Your task to perform on an android device: turn off sleep mode Image 0: 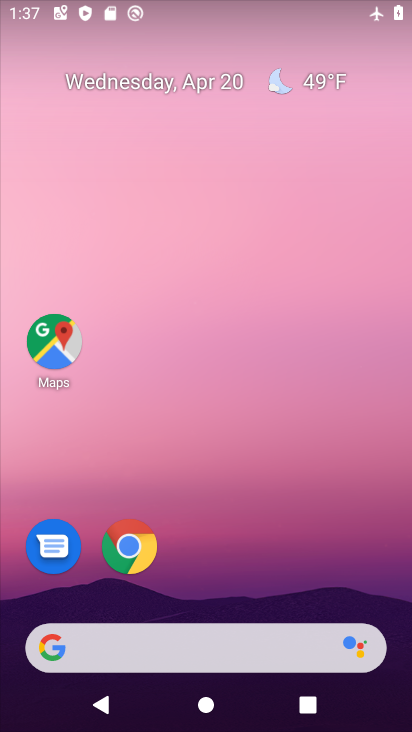
Step 0: drag from (237, 585) to (301, 167)
Your task to perform on an android device: turn off sleep mode Image 1: 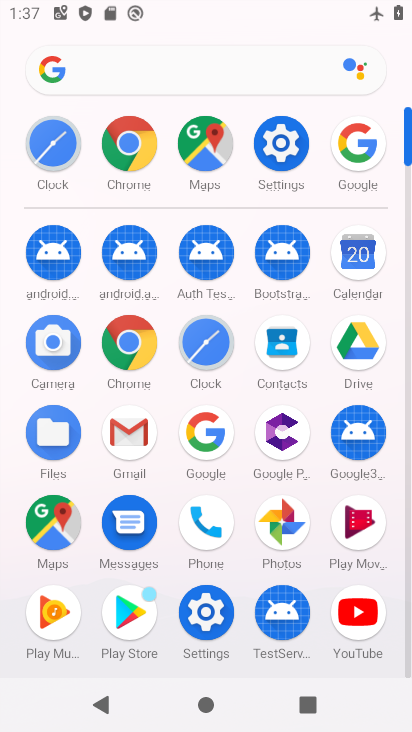
Step 1: click (280, 138)
Your task to perform on an android device: turn off sleep mode Image 2: 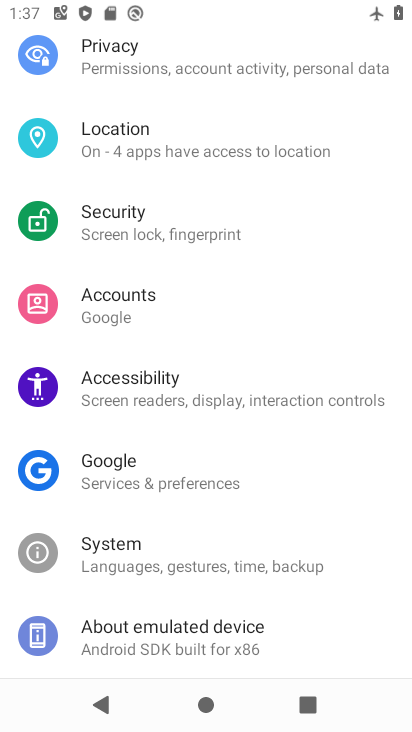
Step 2: task complete